Your task to perform on an android device: Go to Reddit.com Image 0: 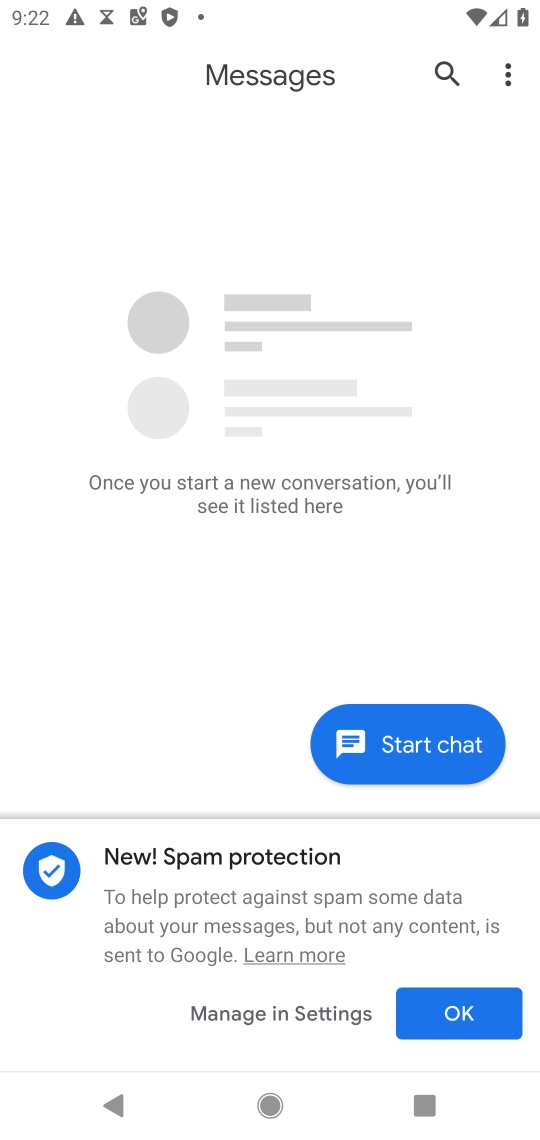
Step 0: press home button
Your task to perform on an android device: Go to Reddit.com Image 1: 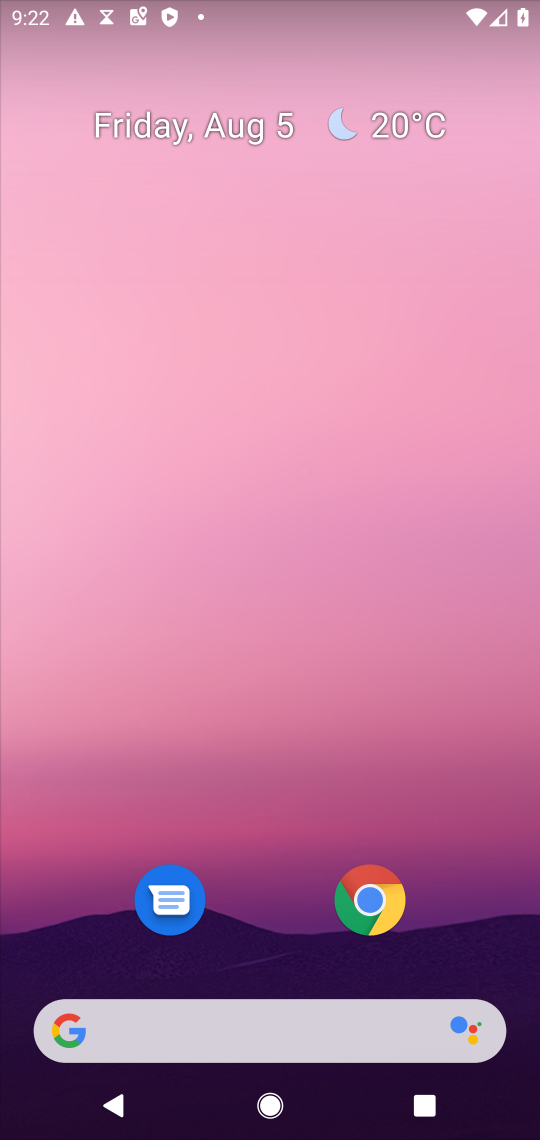
Step 1: click (384, 931)
Your task to perform on an android device: Go to Reddit.com Image 2: 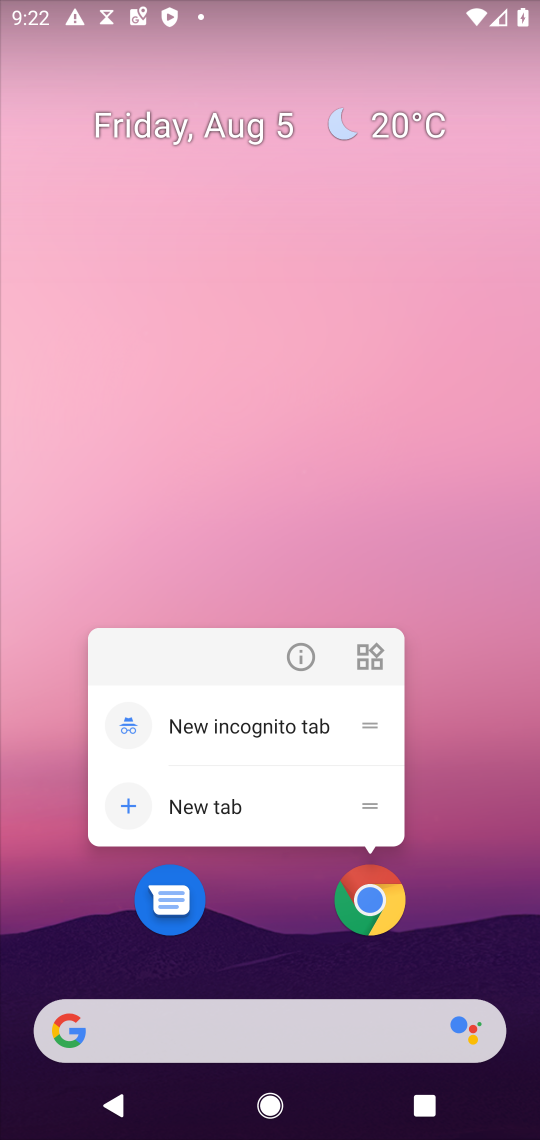
Step 2: click (392, 921)
Your task to perform on an android device: Go to Reddit.com Image 3: 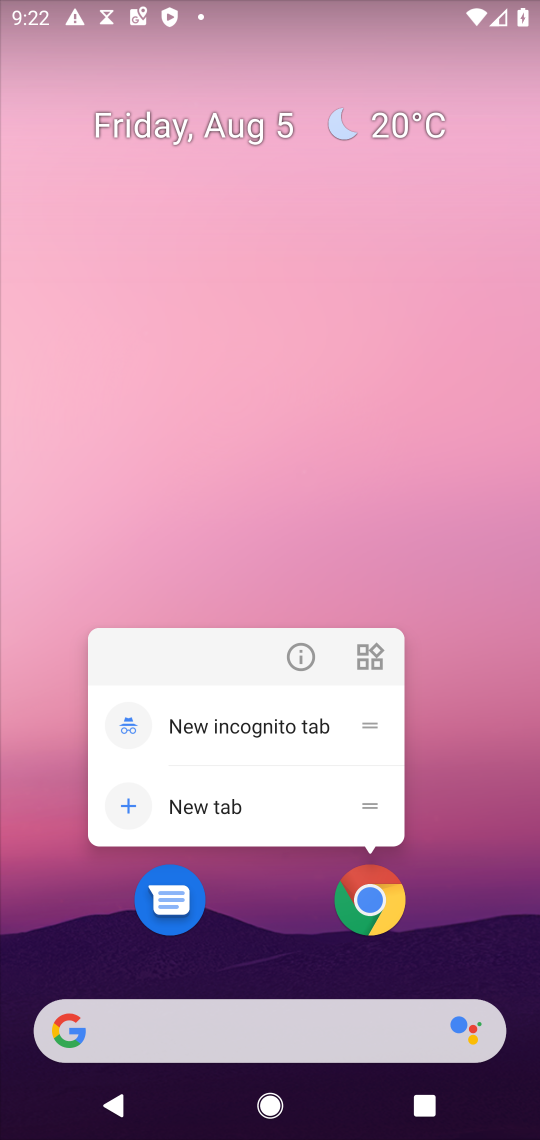
Step 3: click (392, 921)
Your task to perform on an android device: Go to Reddit.com Image 4: 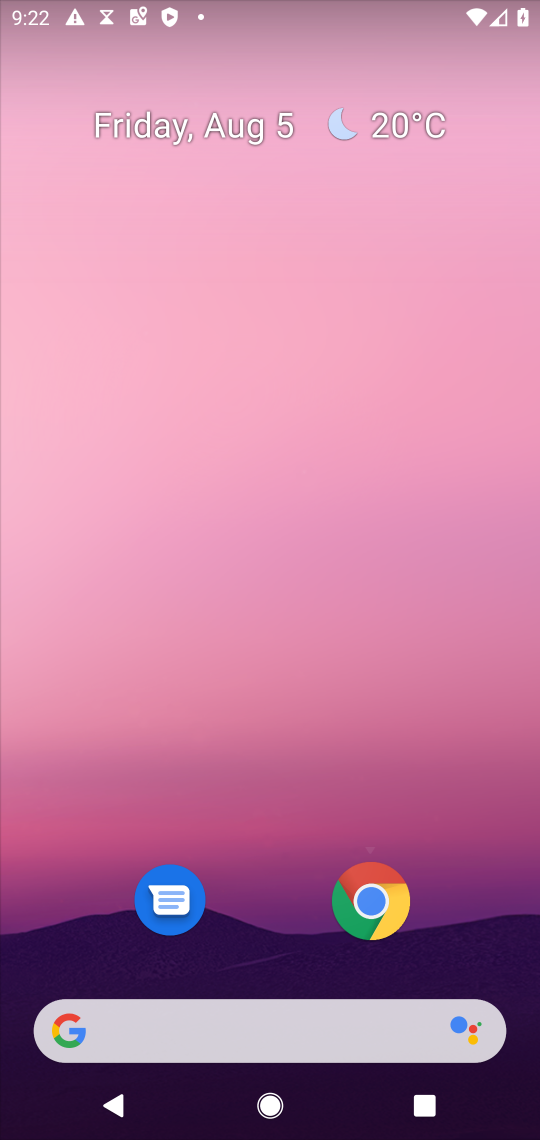
Step 4: click (392, 921)
Your task to perform on an android device: Go to Reddit.com Image 5: 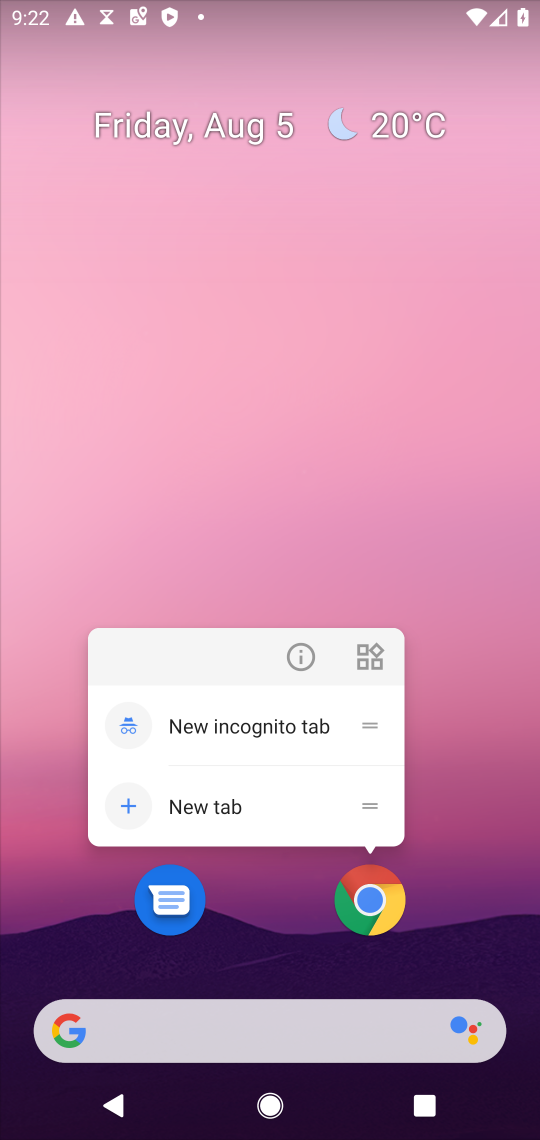
Step 5: click (392, 921)
Your task to perform on an android device: Go to Reddit.com Image 6: 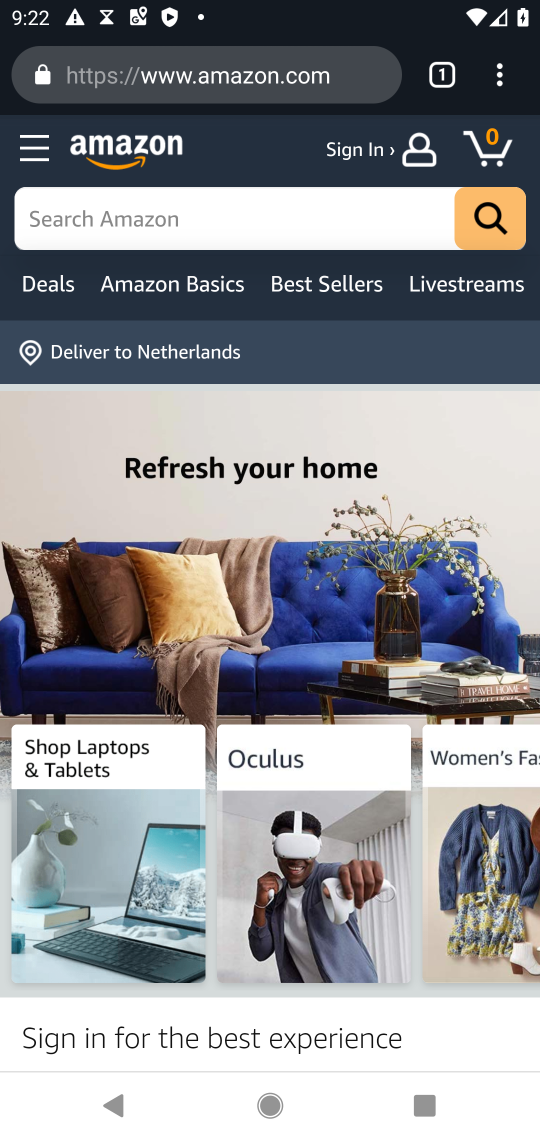
Step 6: click (253, 68)
Your task to perform on an android device: Go to Reddit.com Image 7: 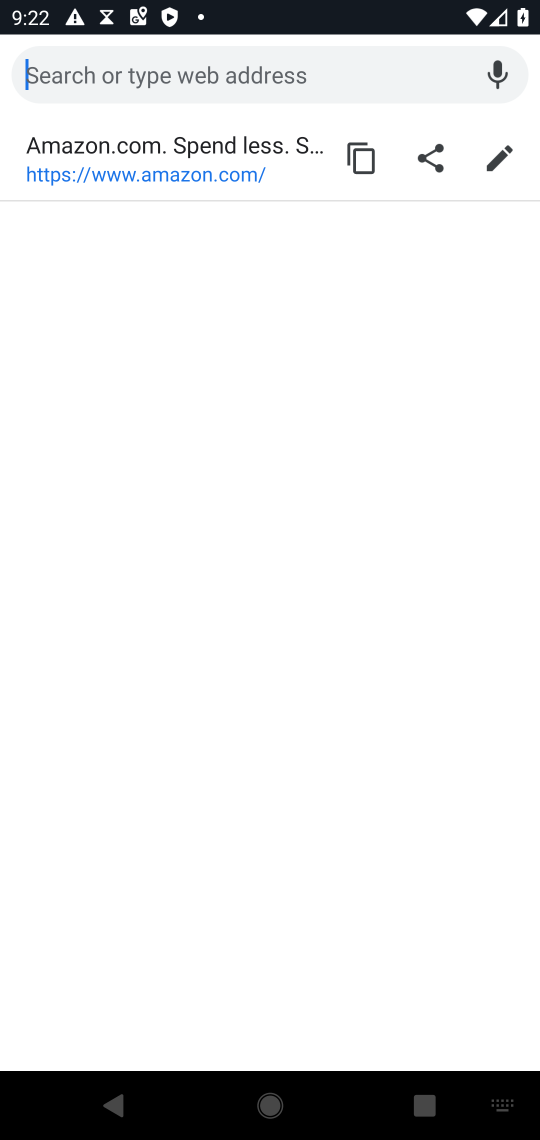
Step 7: type "Reddit.com"
Your task to perform on an android device: Go to Reddit.com Image 8: 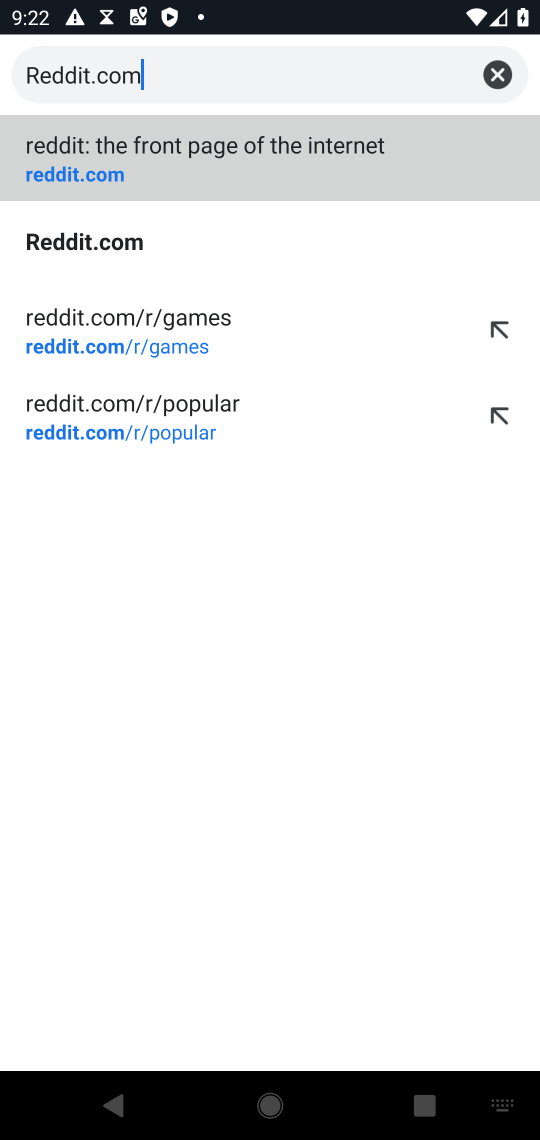
Step 8: click (181, 159)
Your task to perform on an android device: Go to Reddit.com Image 9: 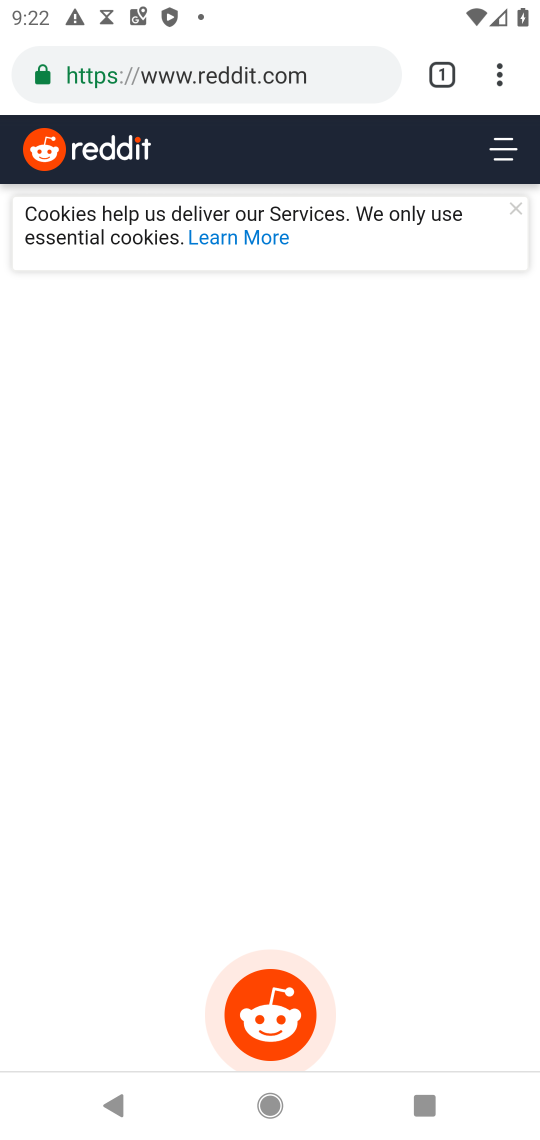
Step 9: task complete